Your task to perform on an android device: open a bookmark in the chrome app Image 0: 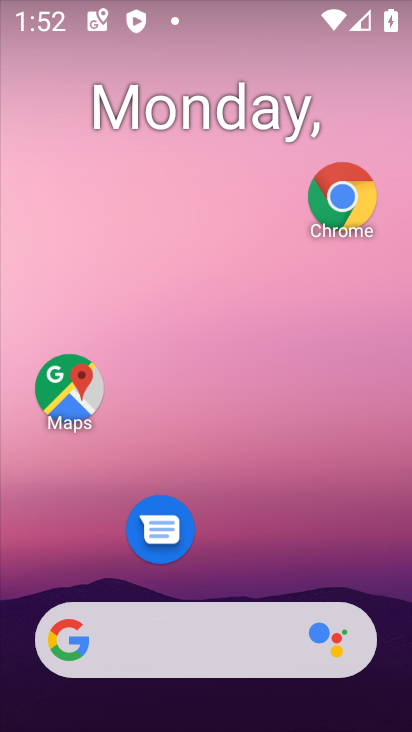
Step 0: click (354, 224)
Your task to perform on an android device: open a bookmark in the chrome app Image 1: 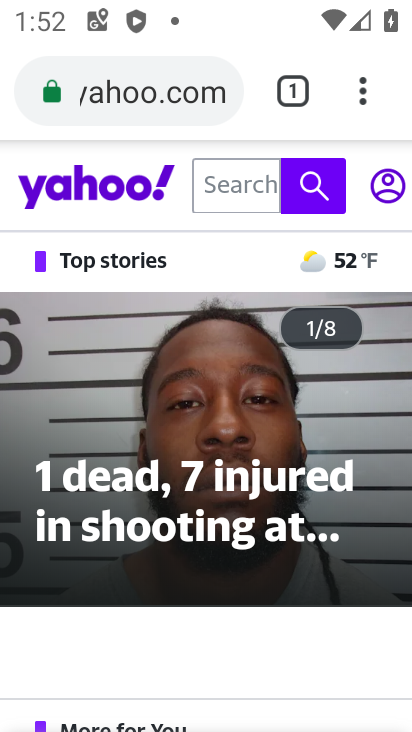
Step 1: click (364, 79)
Your task to perform on an android device: open a bookmark in the chrome app Image 2: 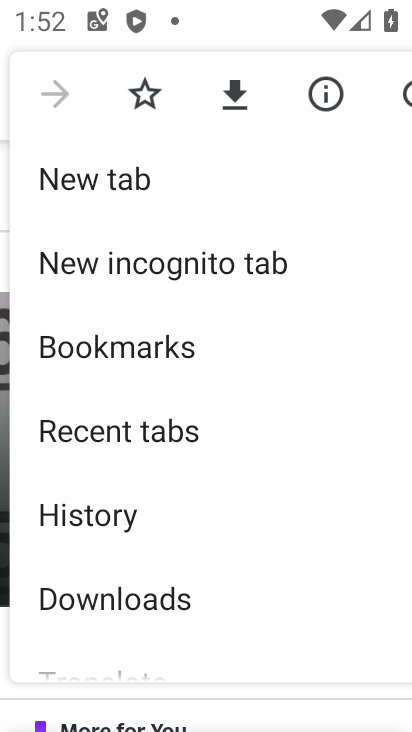
Step 2: click (176, 330)
Your task to perform on an android device: open a bookmark in the chrome app Image 3: 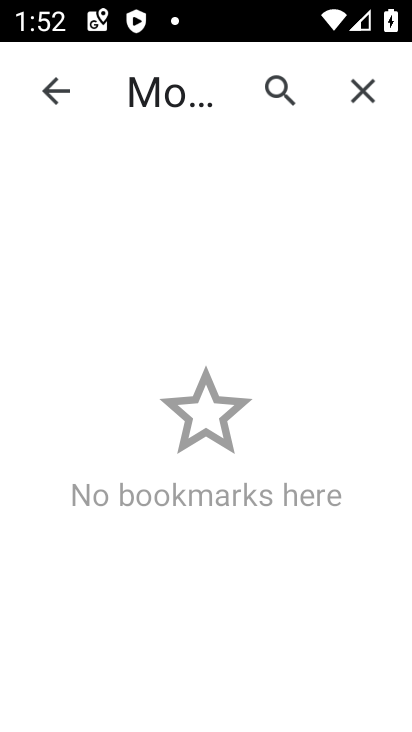
Step 3: task complete